Your task to perform on an android device: turn on the 24-hour format for clock Image 0: 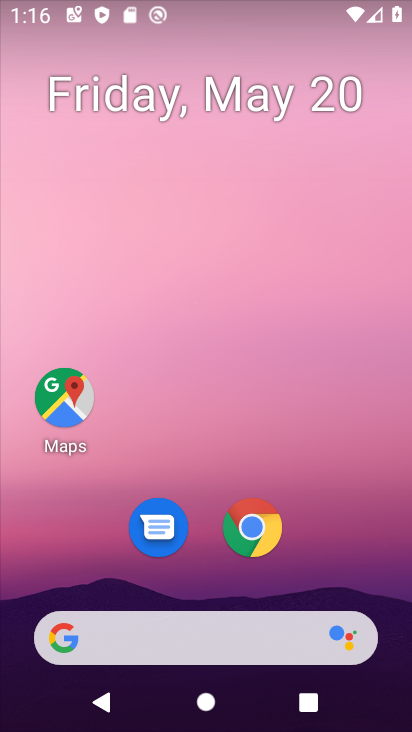
Step 0: press home button
Your task to perform on an android device: turn on the 24-hour format for clock Image 1: 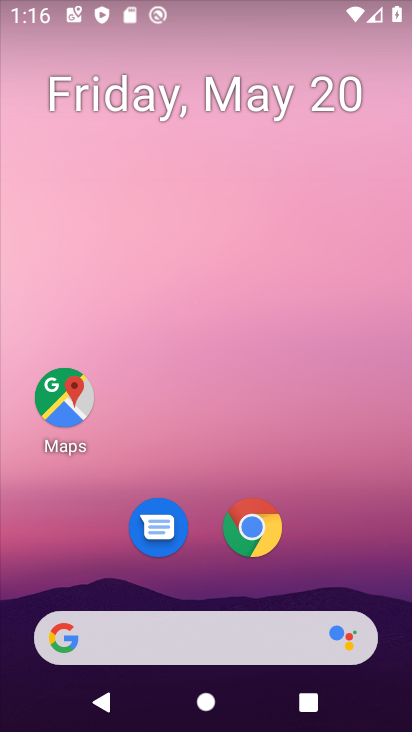
Step 1: drag from (193, 650) to (318, 226)
Your task to perform on an android device: turn on the 24-hour format for clock Image 2: 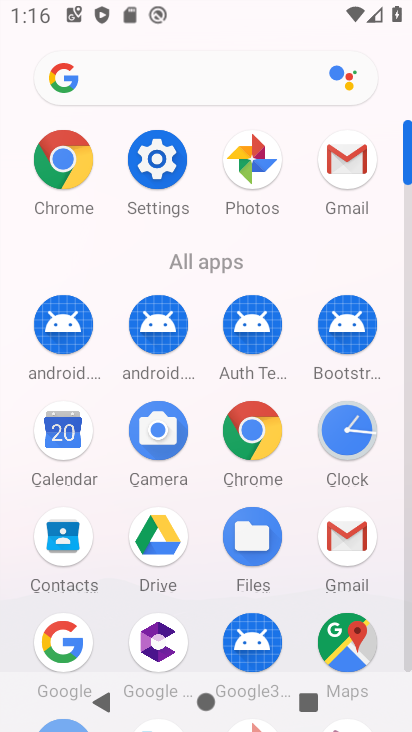
Step 2: click (343, 439)
Your task to perform on an android device: turn on the 24-hour format for clock Image 3: 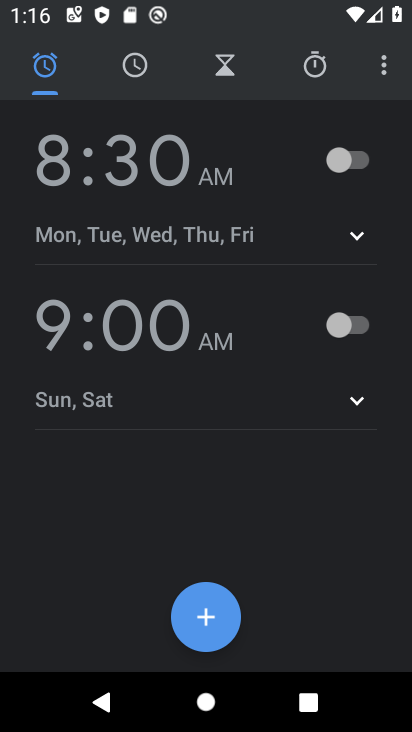
Step 3: click (384, 73)
Your task to perform on an android device: turn on the 24-hour format for clock Image 4: 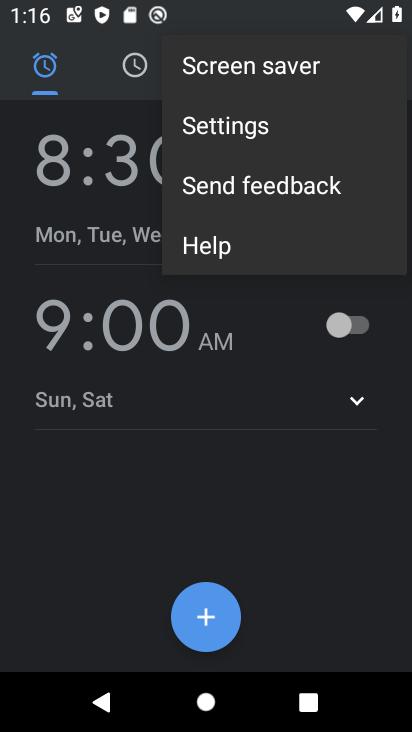
Step 4: click (252, 132)
Your task to perform on an android device: turn on the 24-hour format for clock Image 5: 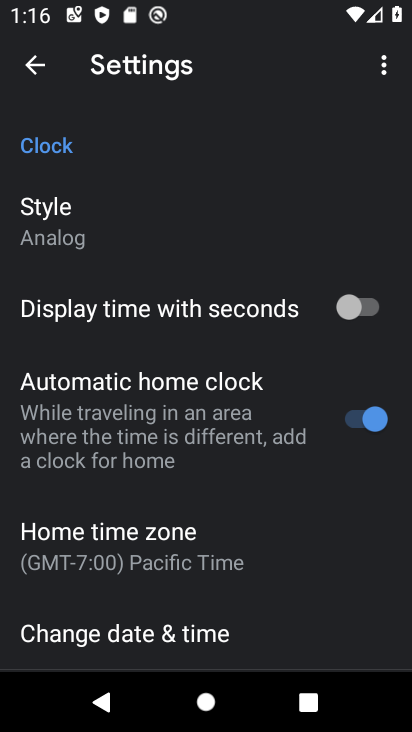
Step 5: drag from (216, 543) to (317, 92)
Your task to perform on an android device: turn on the 24-hour format for clock Image 6: 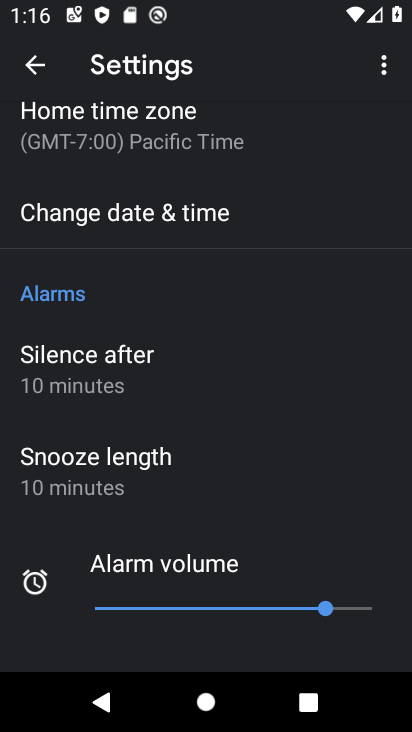
Step 6: click (219, 210)
Your task to perform on an android device: turn on the 24-hour format for clock Image 7: 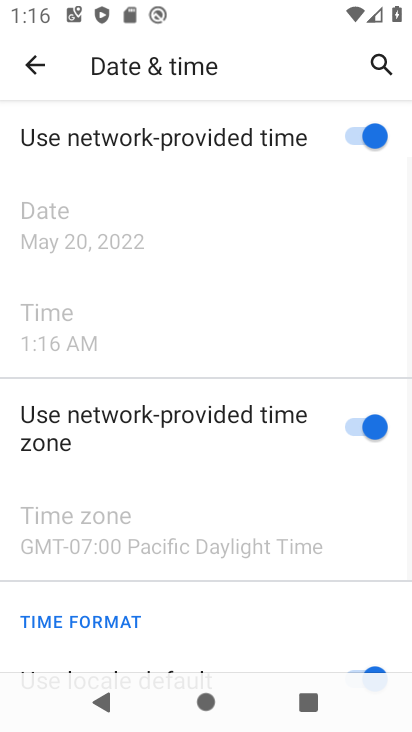
Step 7: drag from (259, 584) to (378, 100)
Your task to perform on an android device: turn on the 24-hour format for clock Image 8: 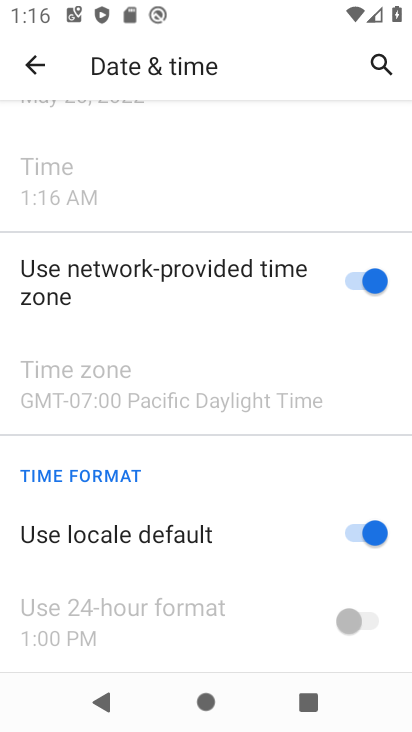
Step 8: drag from (200, 592) to (292, 269)
Your task to perform on an android device: turn on the 24-hour format for clock Image 9: 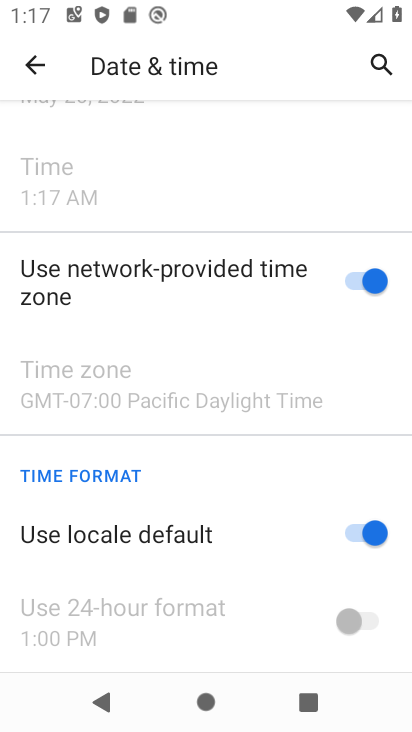
Step 9: click (370, 616)
Your task to perform on an android device: turn on the 24-hour format for clock Image 10: 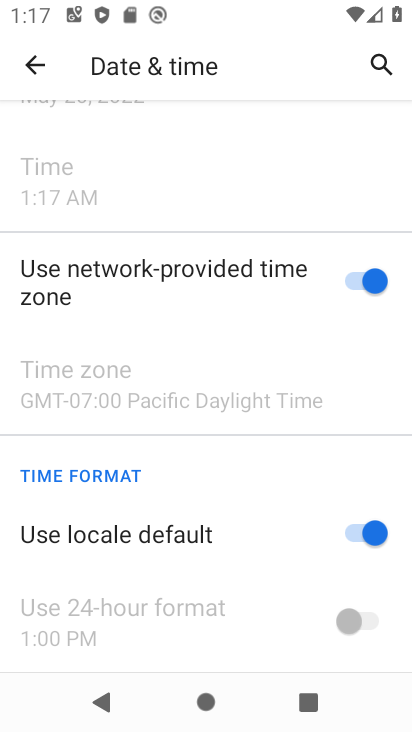
Step 10: click (354, 533)
Your task to perform on an android device: turn on the 24-hour format for clock Image 11: 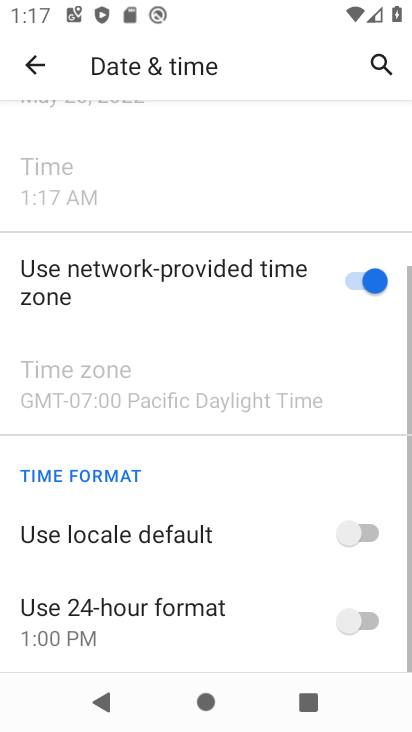
Step 11: click (364, 618)
Your task to perform on an android device: turn on the 24-hour format for clock Image 12: 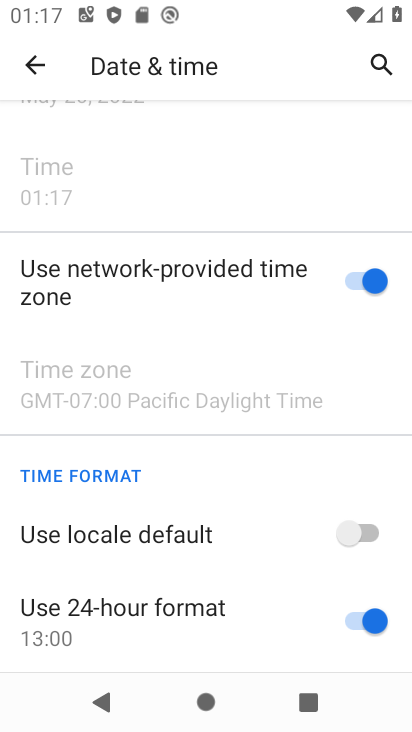
Step 12: task complete